Your task to perform on an android device: uninstall "Microsoft Authenticator" Image 0: 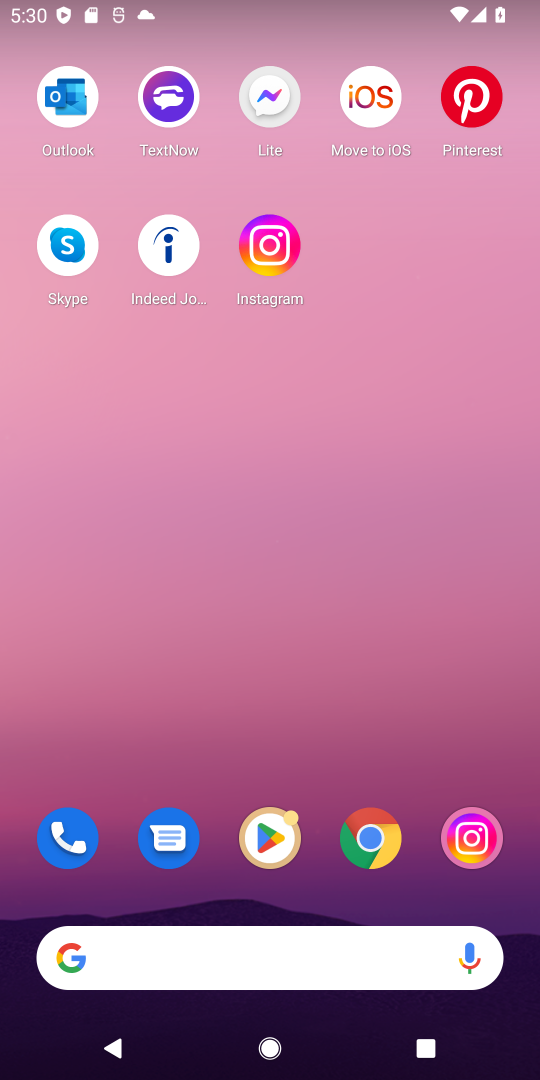
Step 0: drag from (292, 843) to (292, 230)
Your task to perform on an android device: uninstall "Microsoft Authenticator" Image 1: 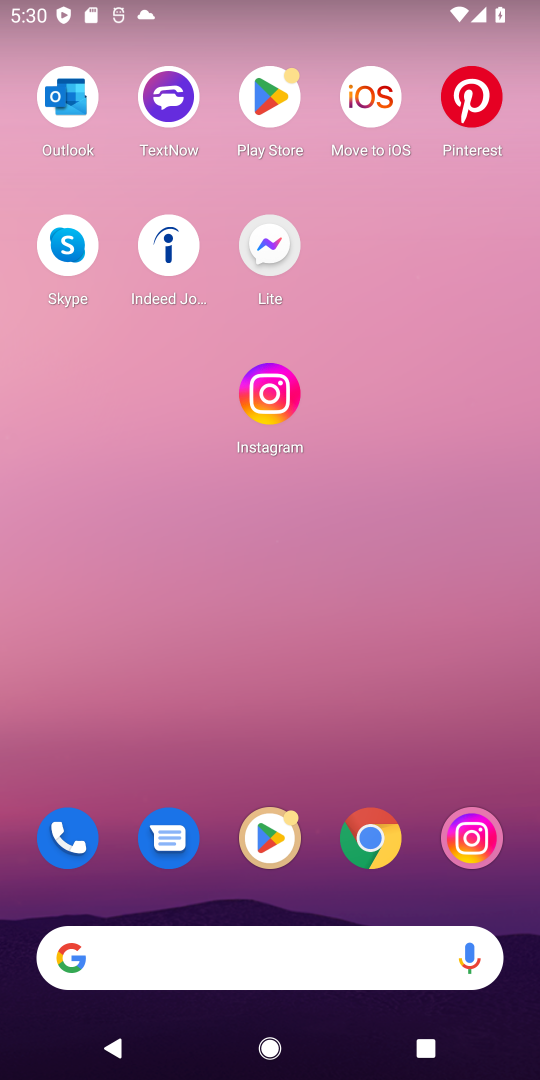
Step 1: click (275, 843)
Your task to perform on an android device: uninstall "Microsoft Authenticator" Image 2: 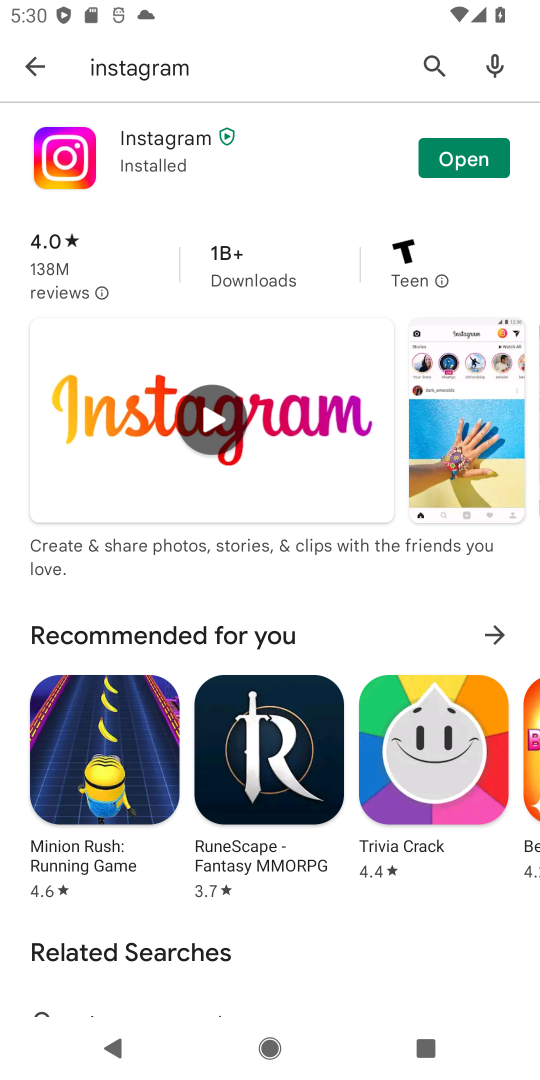
Step 2: click (444, 59)
Your task to perform on an android device: uninstall "Microsoft Authenticator" Image 3: 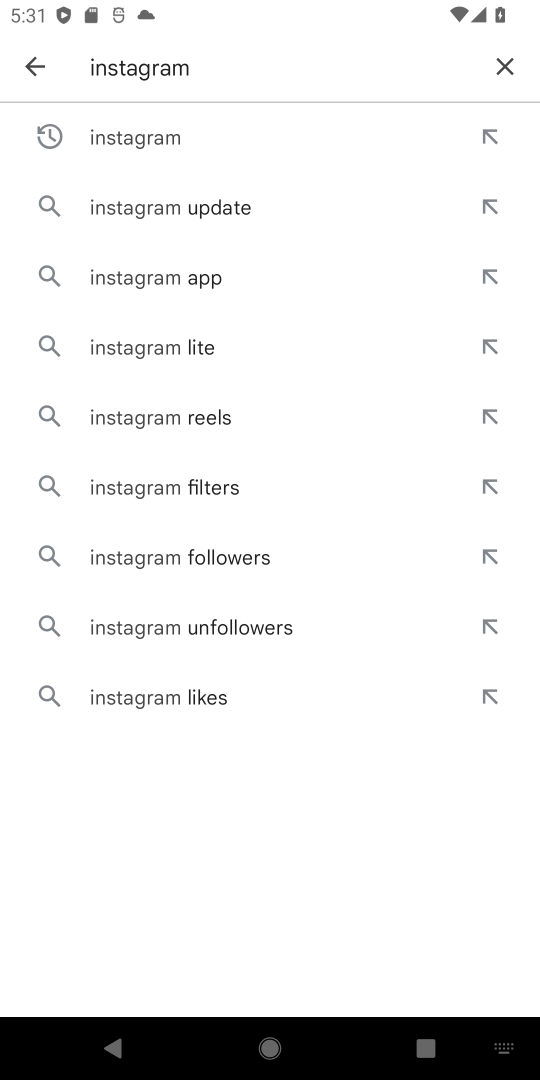
Step 3: click (506, 72)
Your task to perform on an android device: uninstall "Microsoft Authenticator" Image 4: 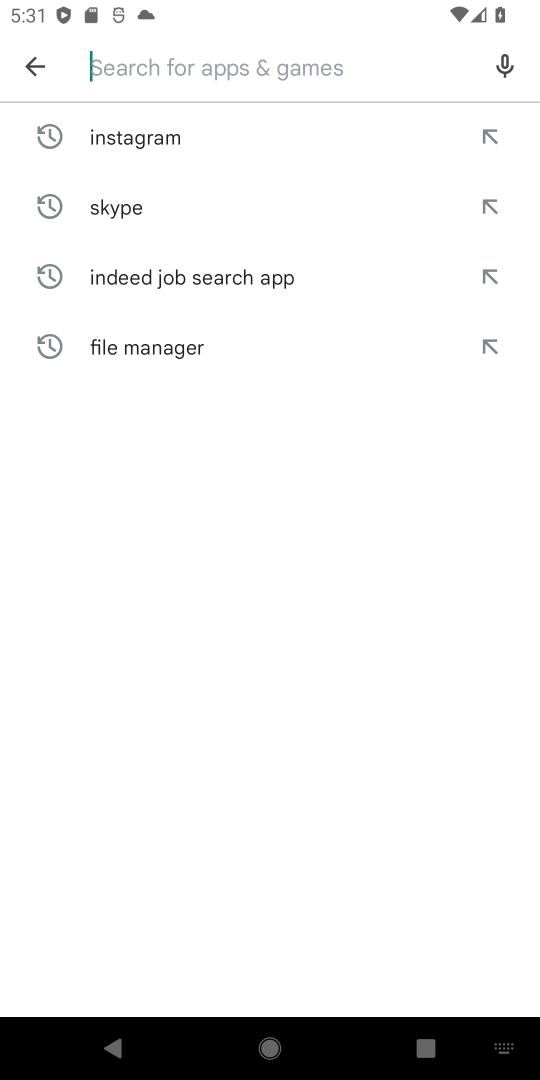
Step 4: type "Microsoft Authenticator"
Your task to perform on an android device: uninstall "Microsoft Authenticator" Image 5: 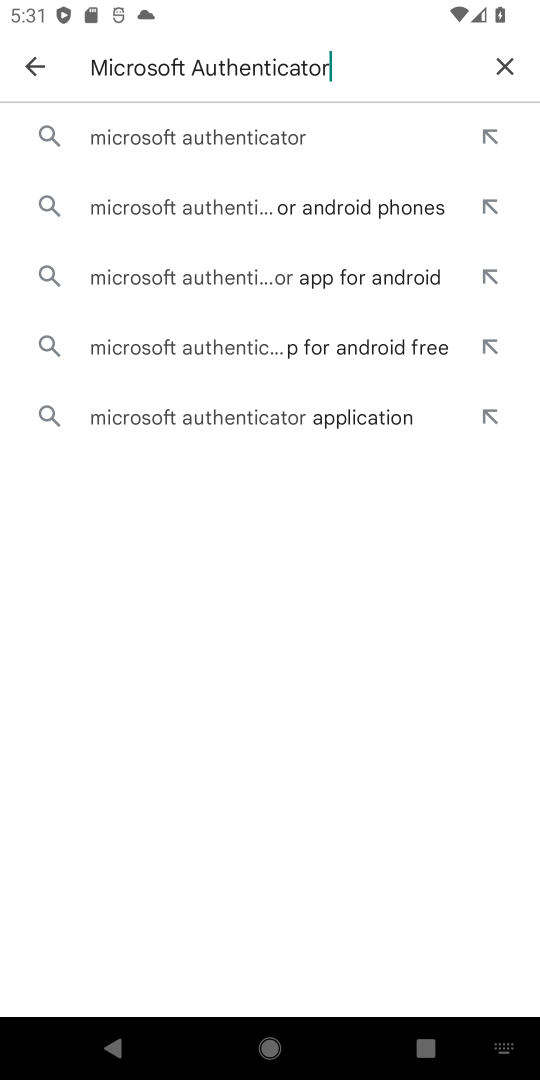
Step 5: click (286, 132)
Your task to perform on an android device: uninstall "Microsoft Authenticator" Image 6: 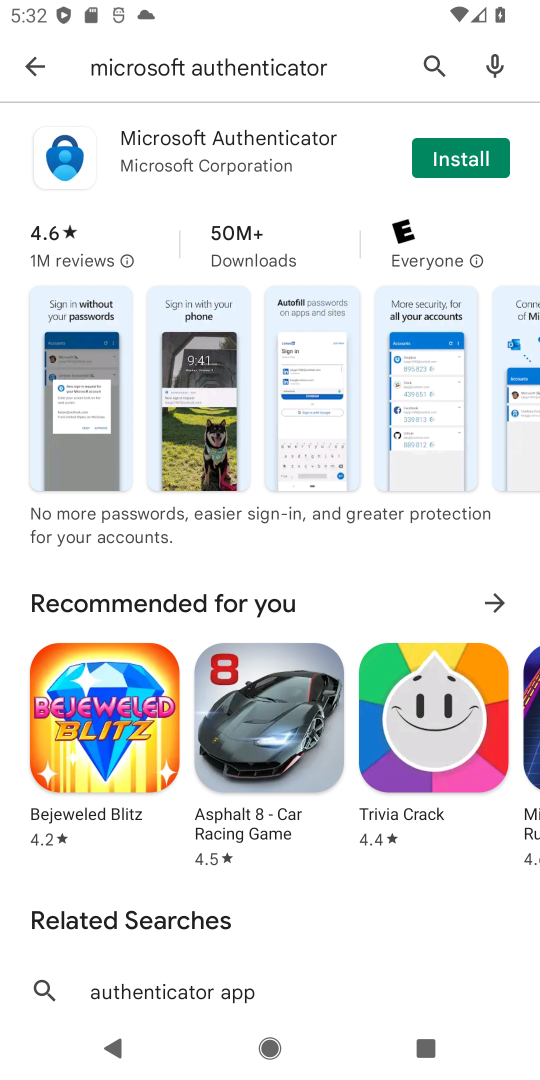
Step 6: task complete